Your task to perform on an android device: toggle location history Image 0: 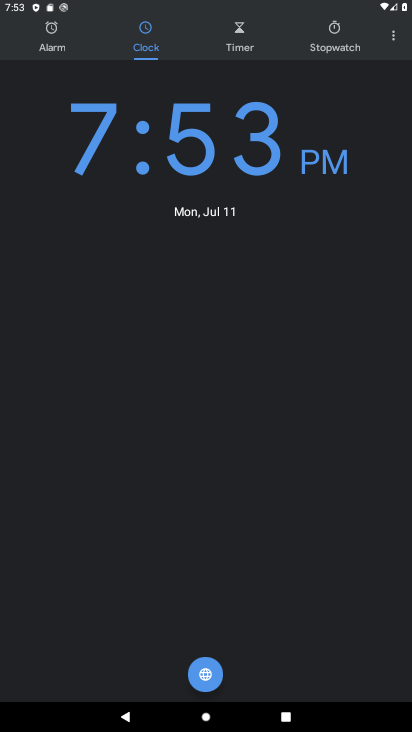
Step 0: press home button
Your task to perform on an android device: toggle location history Image 1: 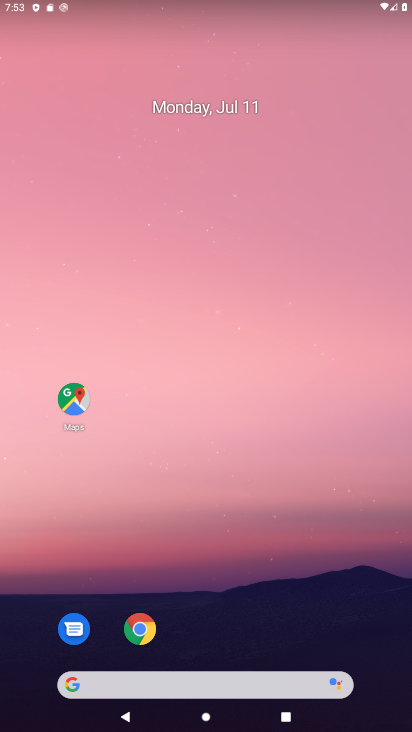
Step 1: drag from (248, 622) to (256, 152)
Your task to perform on an android device: toggle location history Image 2: 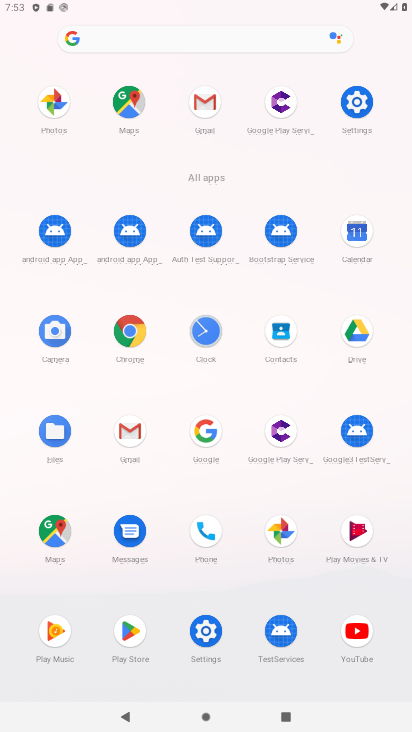
Step 2: click (358, 104)
Your task to perform on an android device: toggle location history Image 3: 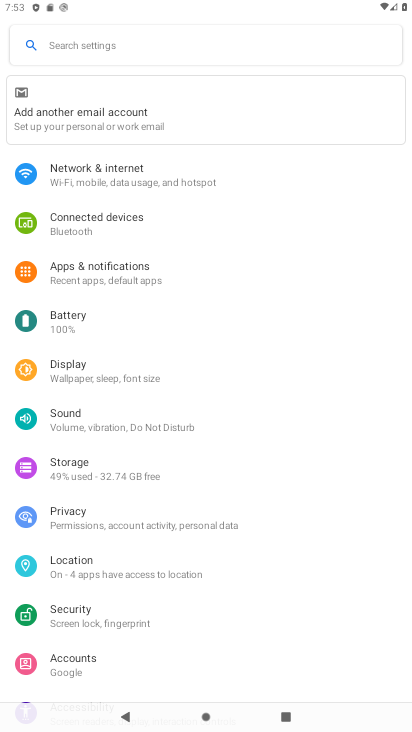
Step 3: click (85, 557)
Your task to perform on an android device: toggle location history Image 4: 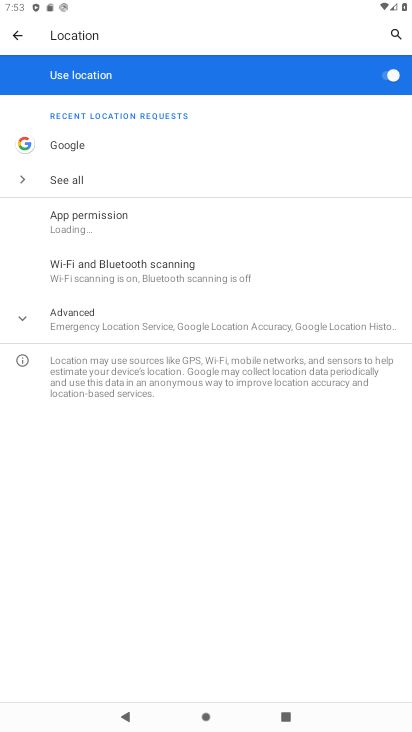
Step 4: click (117, 314)
Your task to perform on an android device: toggle location history Image 5: 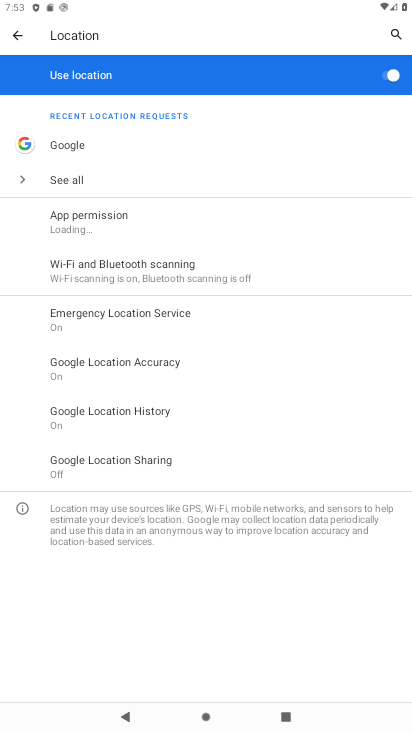
Step 5: click (148, 405)
Your task to perform on an android device: toggle location history Image 6: 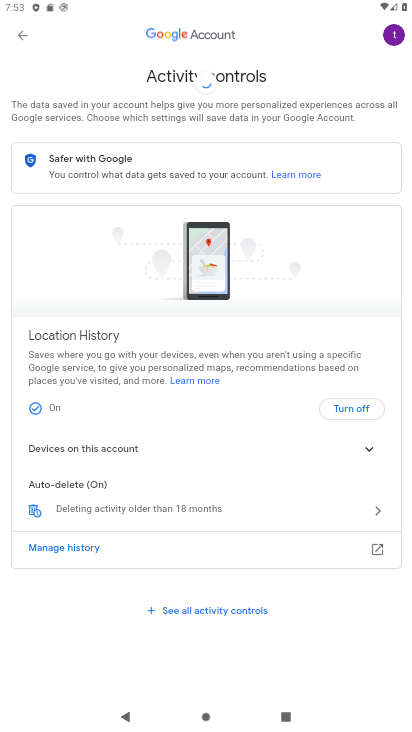
Step 6: click (348, 406)
Your task to perform on an android device: toggle location history Image 7: 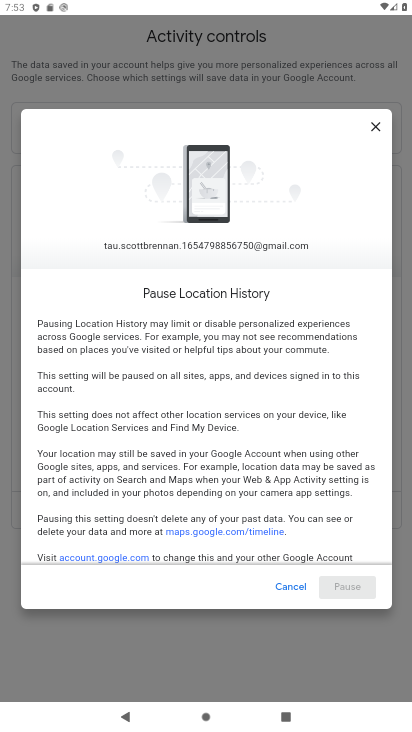
Step 7: drag from (331, 517) to (343, 124)
Your task to perform on an android device: toggle location history Image 8: 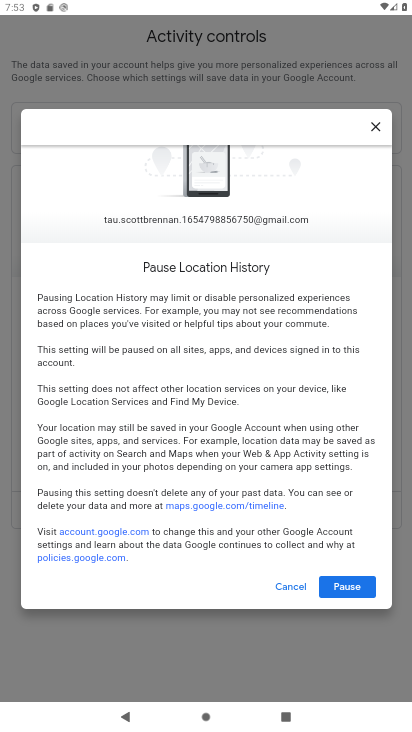
Step 8: click (342, 583)
Your task to perform on an android device: toggle location history Image 9: 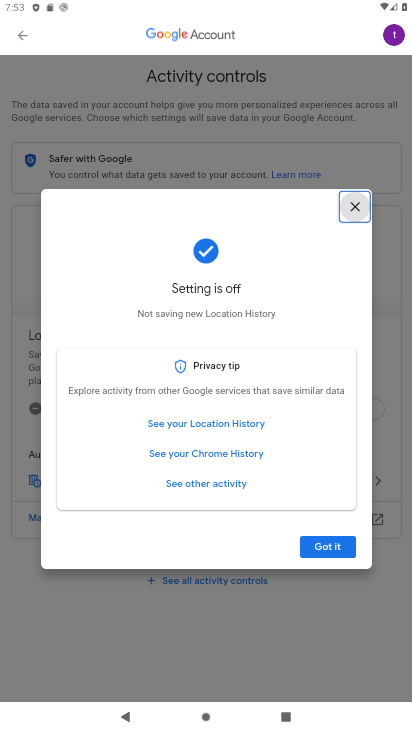
Step 9: click (342, 548)
Your task to perform on an android device: toggle location history Image 10: 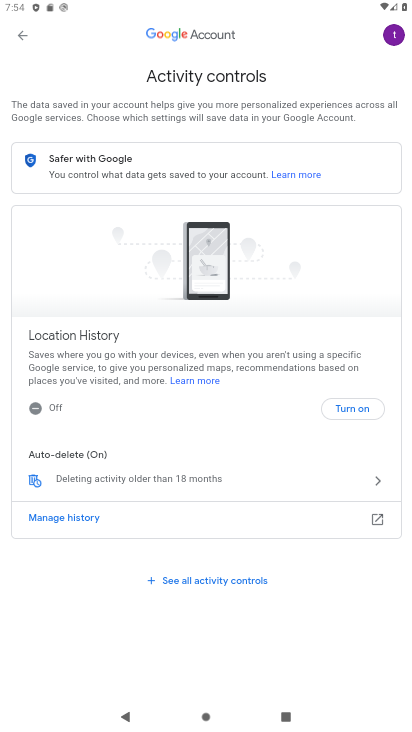
Step 10: task complete